Your task to perform on an android device: Go to battery settings Image 0: 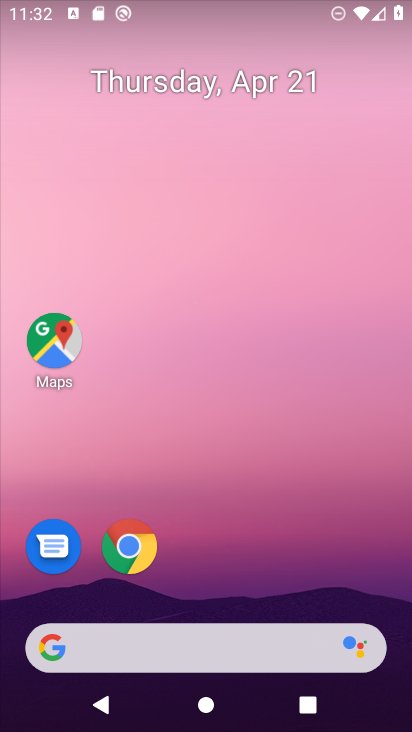
Step 0: drag from (333, 599) to (286, 146)
Your task to perform on an android device: Go to battery settings Image 1: 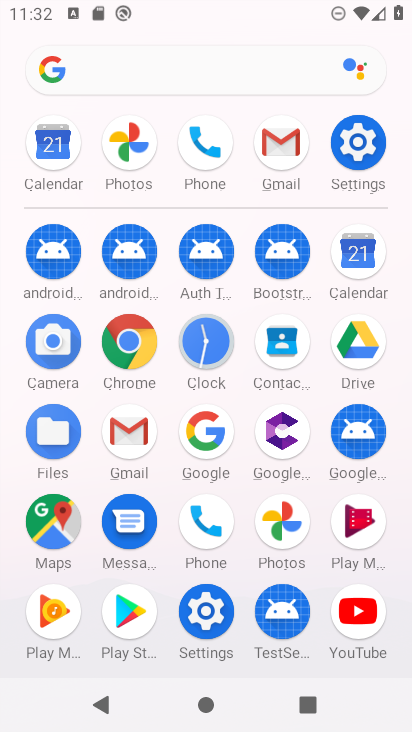
Step 1: click (207, 613)
Your task to perform on an android device: Go to battery settings Image 2: 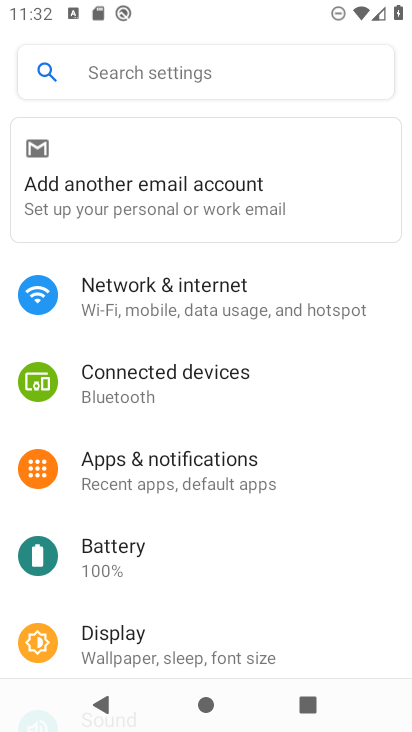
Step 2: click (87, 556)
Your task to perform on an android device: Go to battery settings Image 3: 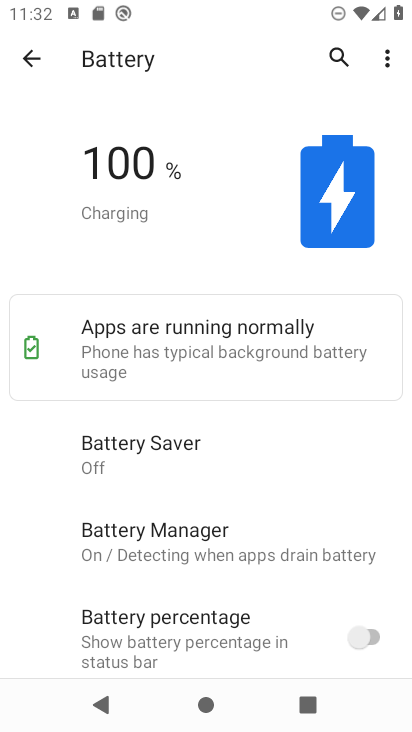
Step 3: task complete